Your task to perform on an android device: turn off picture-in-picture Image 0: 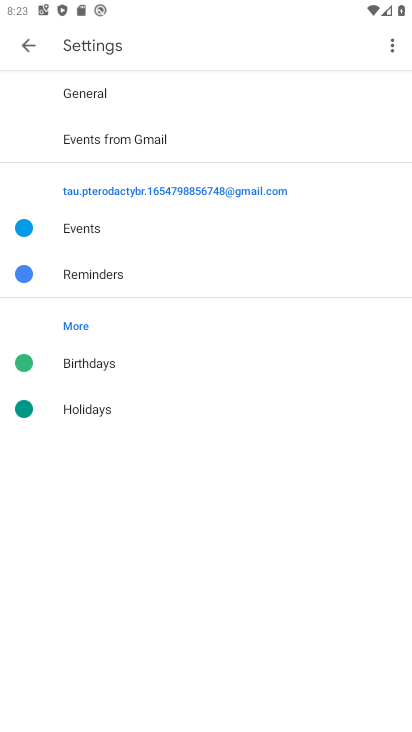
Step 0: press home button
Your task to perform on an android device: turn off picture-in-picture Image 1: 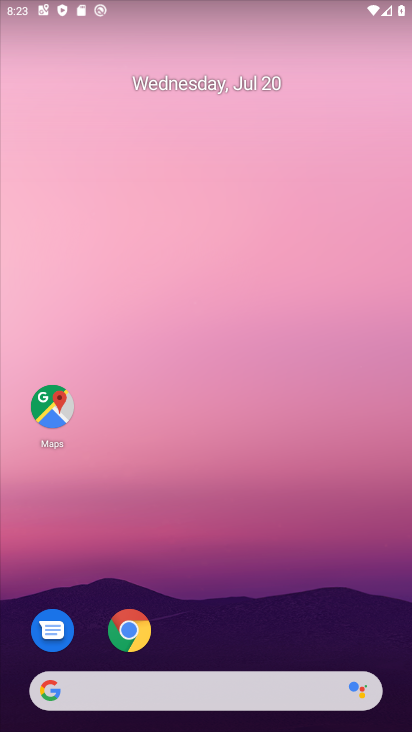
Step 1: drag from (402, 705) to (307, 63)
Your task to perform on an android device: turn off picture-in-picture Image 2: 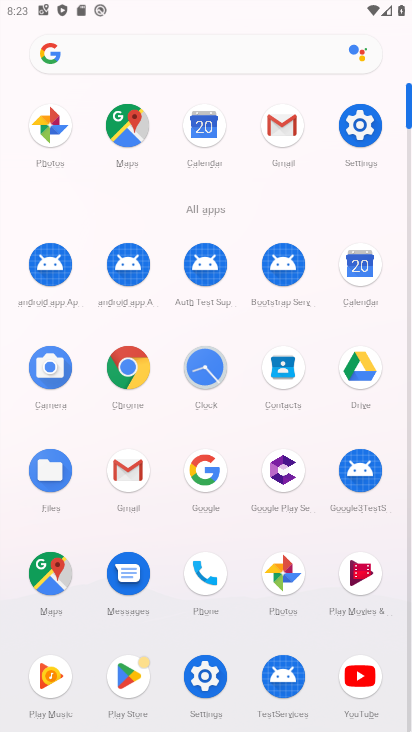
Step 2: click (126, 371)
Your task to perform on an android device: turn off picture-in-picture Image 3: 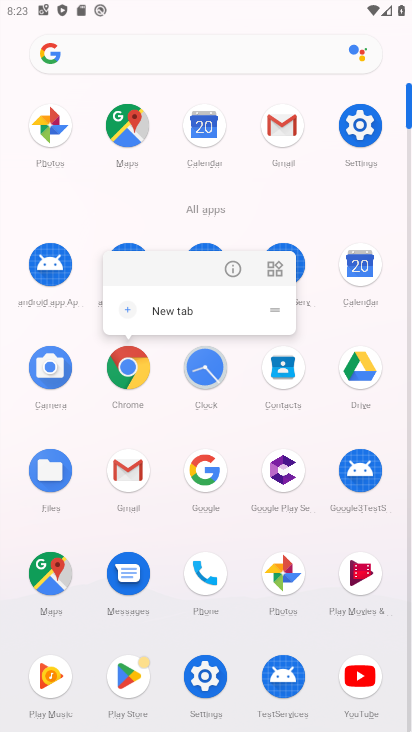
Step 3: click (229, 265)
Your task to perform on an android device: turn off picture-in-picture Image 4: 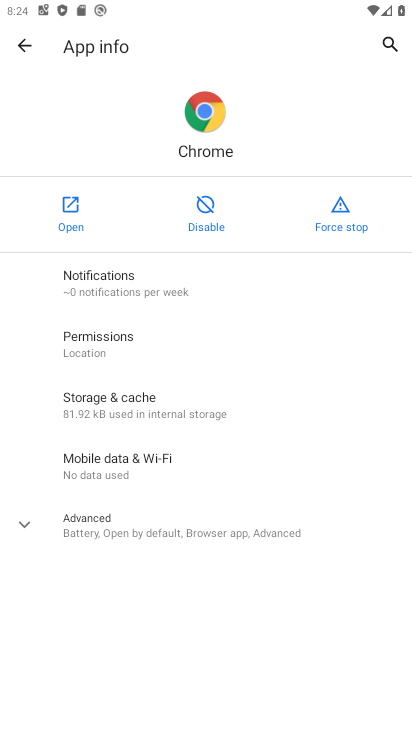
Step 4: click (25, 524)
Your task to perform on an android device: turn off picture-in-picture Image 5: 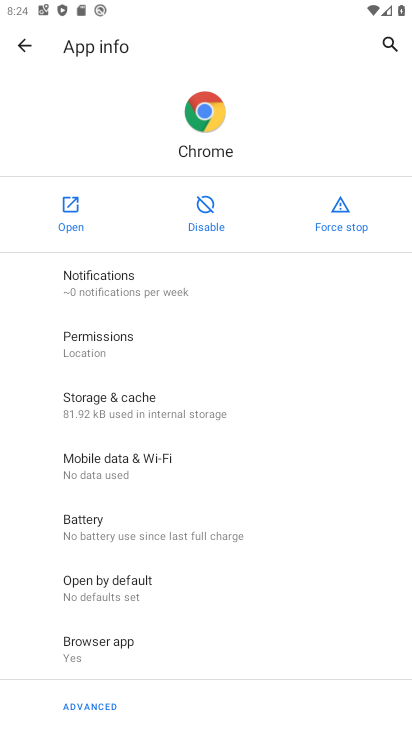
Step 5: drag from (238, 653) to (261, 313)
Your task to perform on an android device: turn off picture-in-picture Image 6: 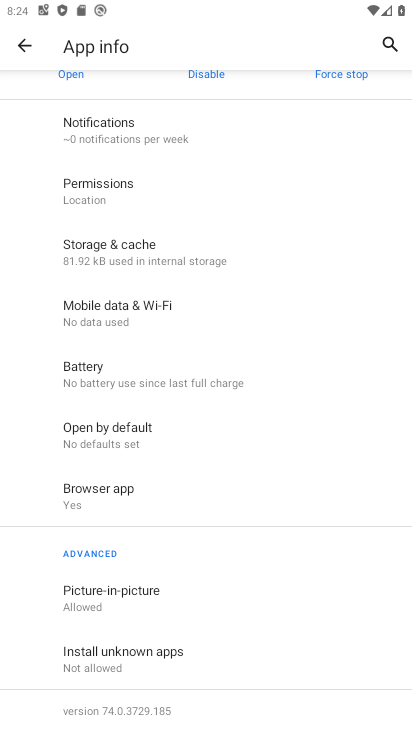
Step 6: click (94, 591)
Your task to perform on an android device: turn off picture-in-picture Image 7: 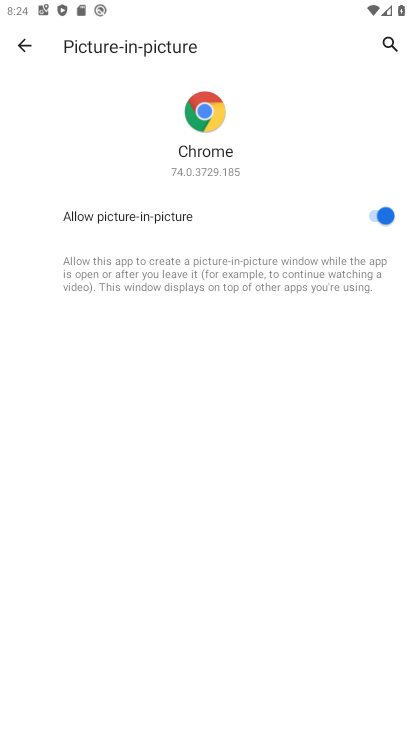
Step 7: click (379, 216)
Your task to perform on an android device: turn off picture-in-picture Image 8: 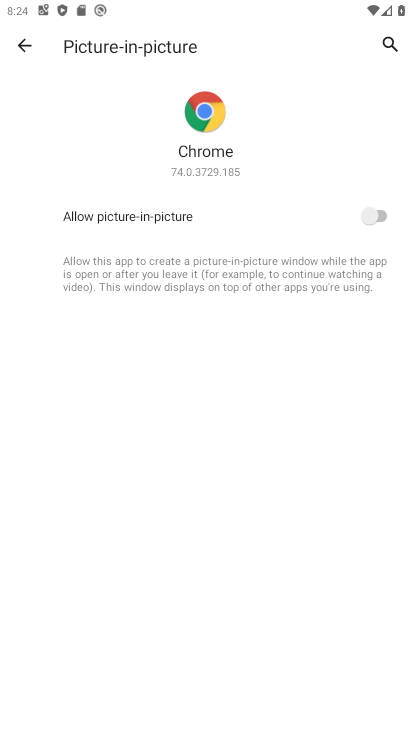
Step 8: task complete